Your task to perform on an android device: Do I have any events tomorrow? Image 0: 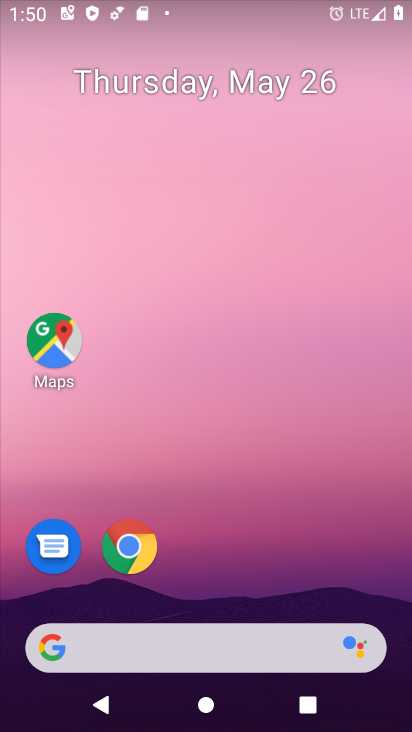
Step 0: drag from (404, 642) to (286, 79)
Your task to perform on an android device: Do I have any events tomorrow? Image 1: 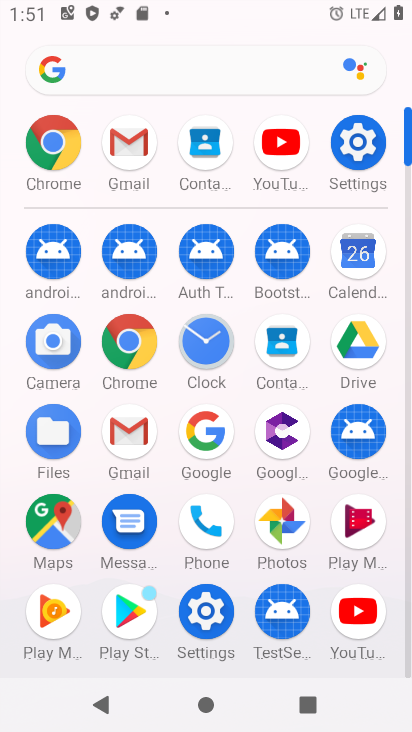
Step 1: click (339, 282)
Your task to perform on an android device: Do I have any events tomorrow? Image 2: 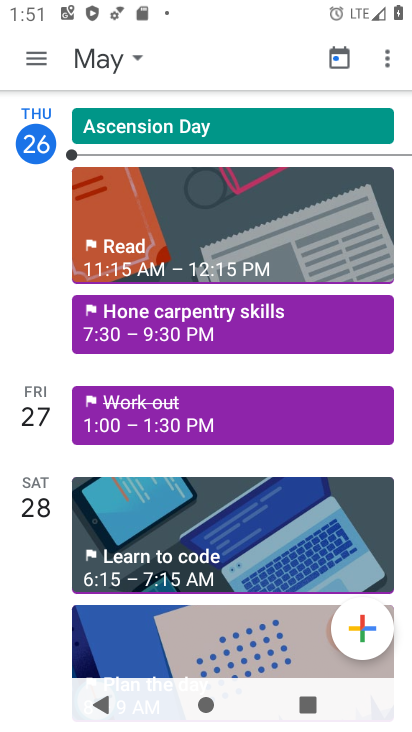
Step 2: click (97, 63)
Your task to perform on an android device: Do I have any events tomorrow? Image 3: 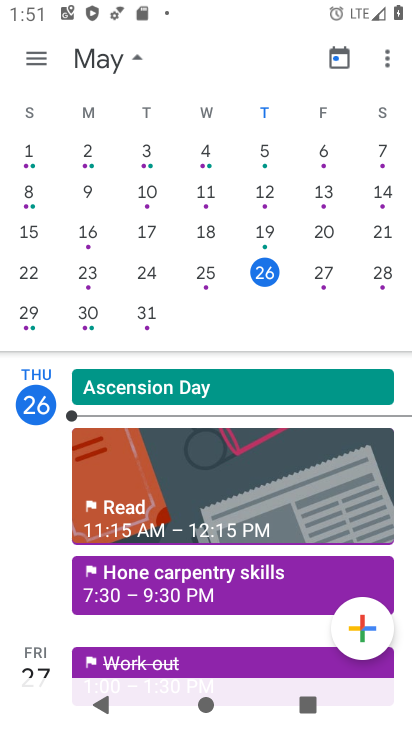
Step 3: click (328, 281)
Your task to perform on an android device: Do I have any events tomorrow? Image 4: 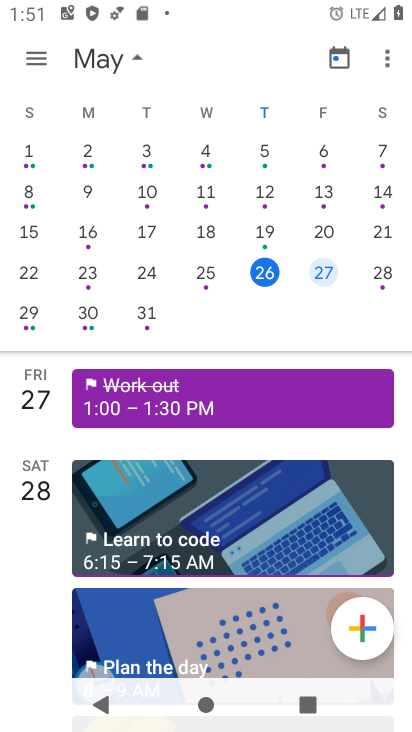
Step 4: click (314, 268)
Your task to perform on an android device: Do I have any events tomorrow? Image 5: 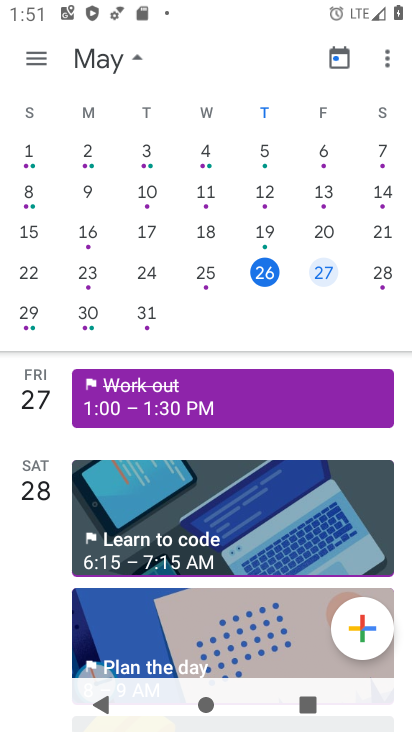
Step 5: click (297, 391)
Your task to perform on an android device: Do I have any events tomorrow? Image 6: 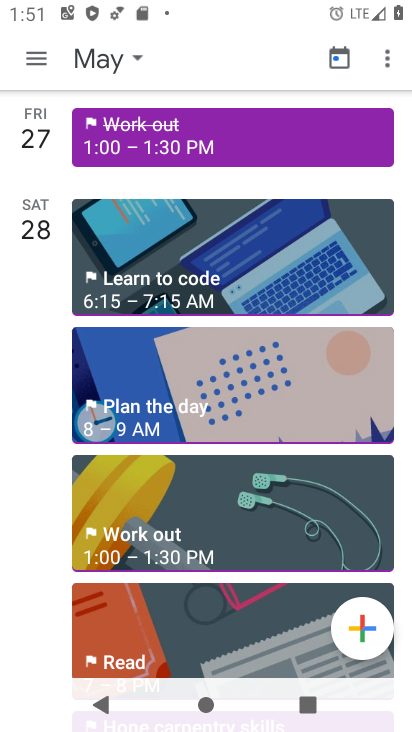
Step 6: click (172, 166)
Your task to perform on an android device: Do I have any events tomorrow? Image 7: 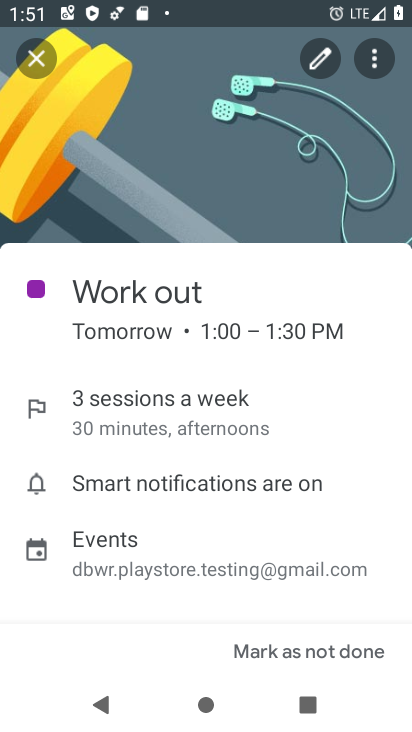
Step 7: task complete